Your task to perform on an android device: Open location settings Image 0: 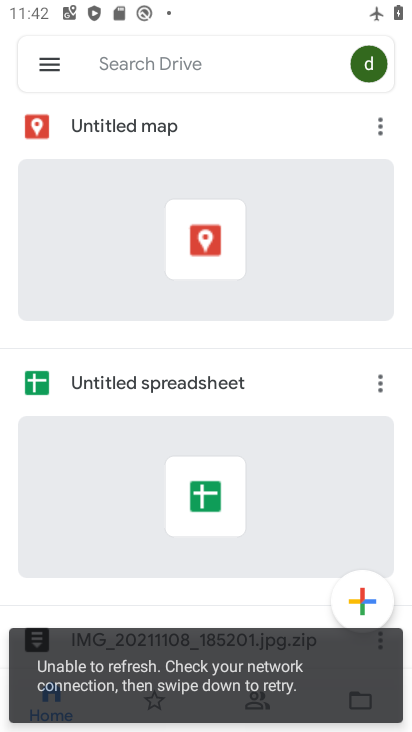
Step 0: press home button
Your task to perform on an android device: Open location settings Image 1: 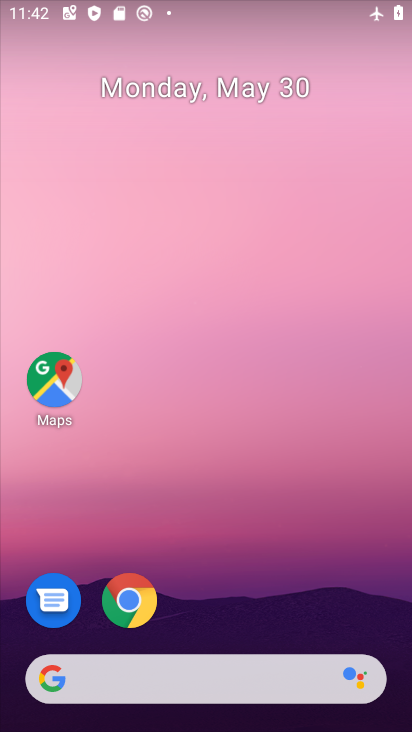
Step 1: drag from (211, 728) to (212, 44)
Your task to perform on an android device: Open location settings Image 2: 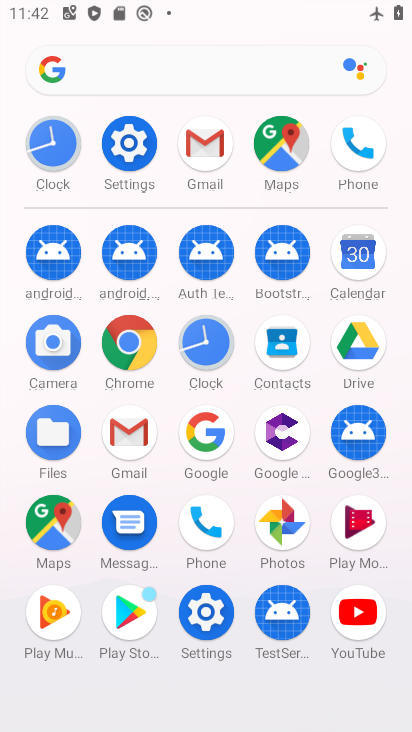
Step 2: click (126, 144)
Your task to perform on an android device: Open location settings Image 3: 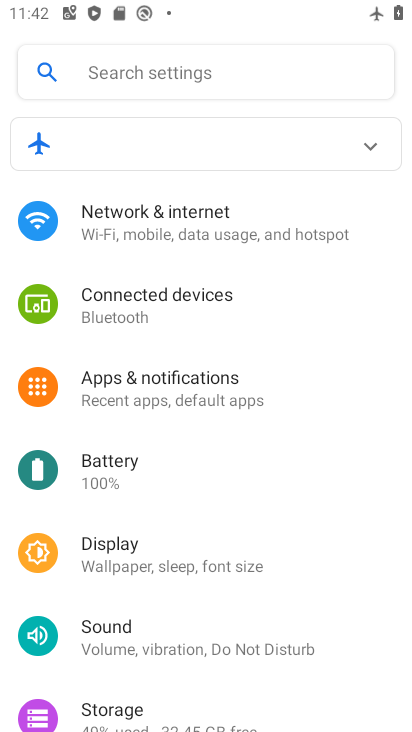
Step 3: drag from (177, 665) to (173, 323)
Your task to perform on an android device: Open location settings Image 4: 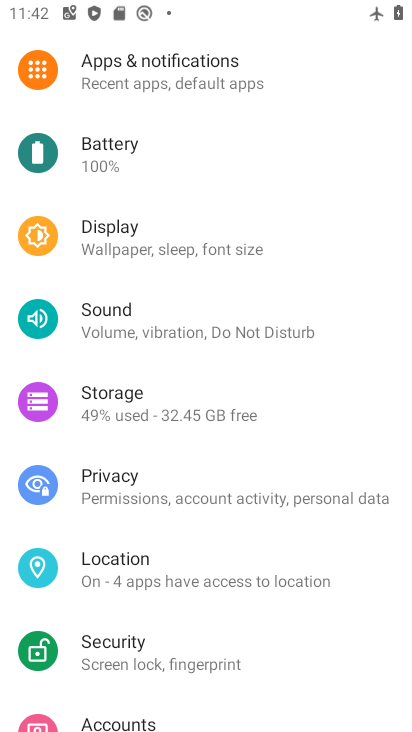
Step 4: click (108, 573)
Your task to perform on an android device: Open location settings Image 5: 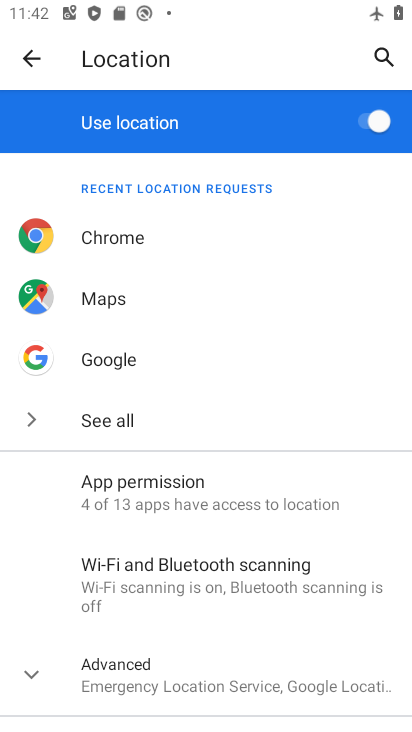
Step 5: task complete